Your task to perform on an android device: Clear all items from cart on amazon.com. Add "razer thresher" to the cart on amazon.com, then select checkout. Image 0: 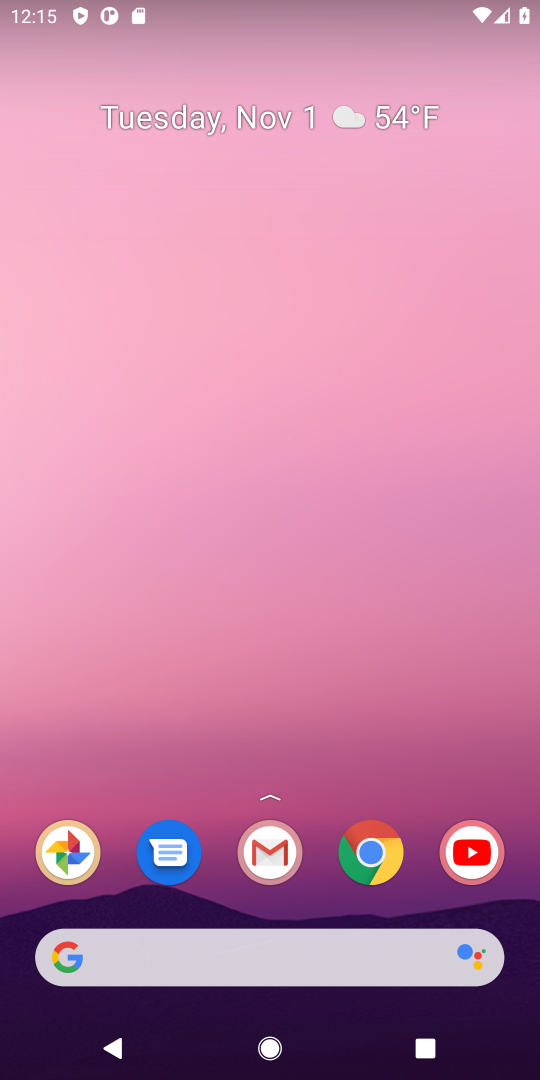
Step 0: click (373, 853)
Your task to perform on an android device: Clear all items from cart on amazon.com. Add "razer thresher" to the cart on amazon.com, then select checkout. Image 1: 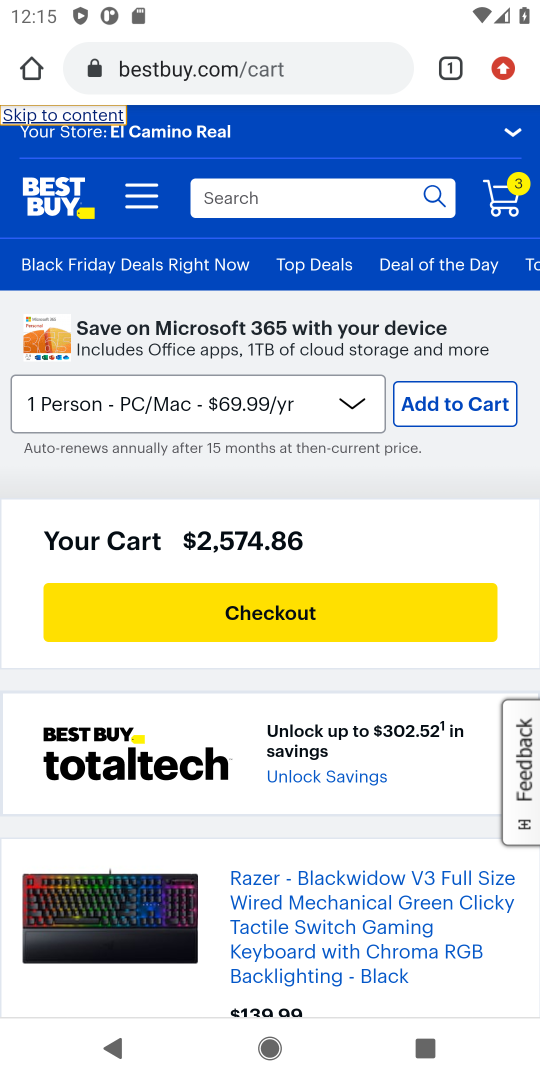
Step 1: click (265, 69)
Your task to perform on an android device: Clear all items from cart on amazon.com. Add "razer thresher" to the cart on amazon.com, then select checkout. Image 2: 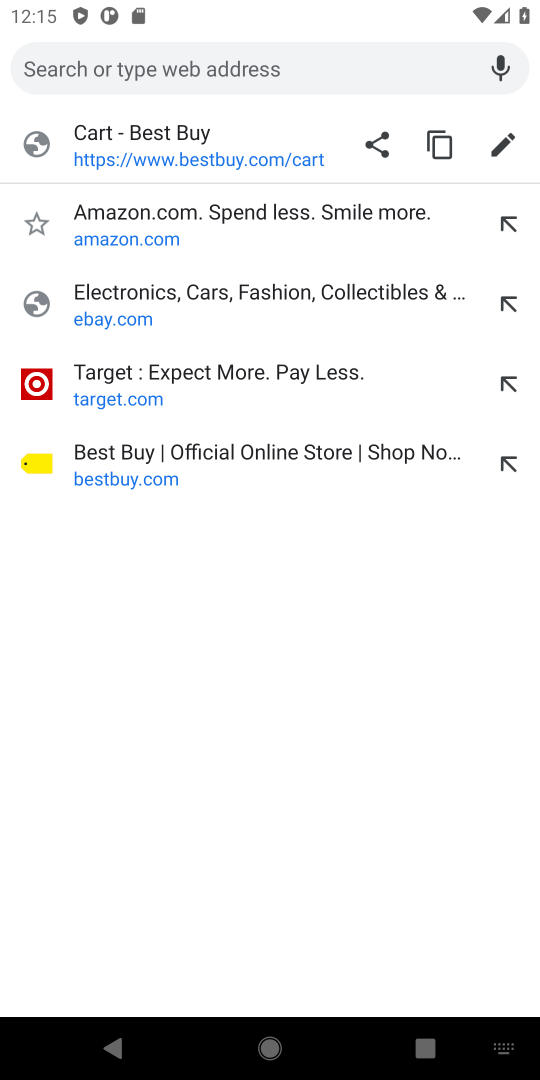
Step 2: type "amazon.com"
Your task to perform on an android device: Clear all items from cart on amazon.com. Add "razer thresher" to the cart on amazon.com, then select checkout. Image 3: 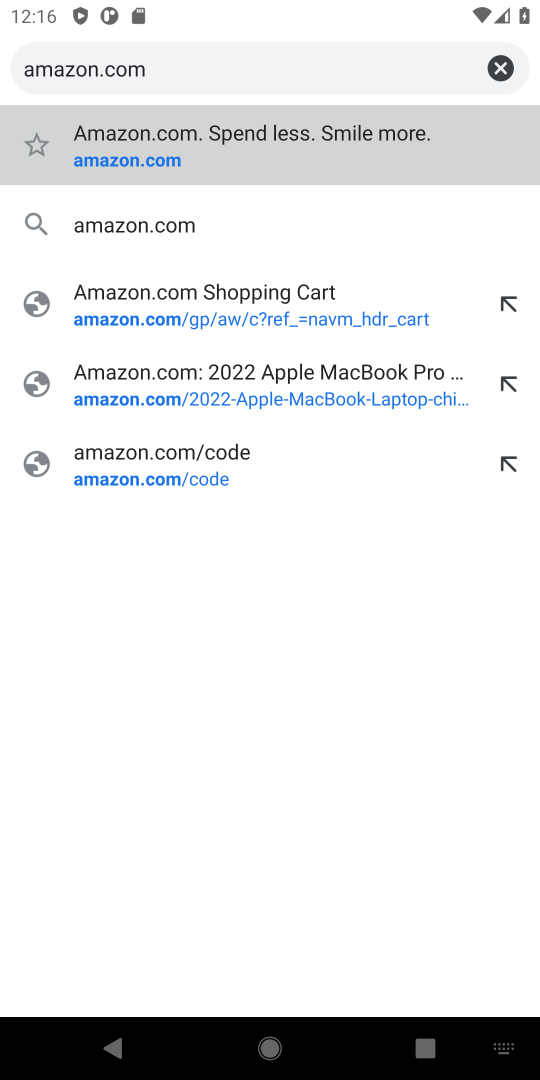
Step 3: type ""
Your task to perform on an android device: Clear all items from cart on amazon.com. Add "razer thresher" to the cart on amazon.com, then select checkout. Image 4: 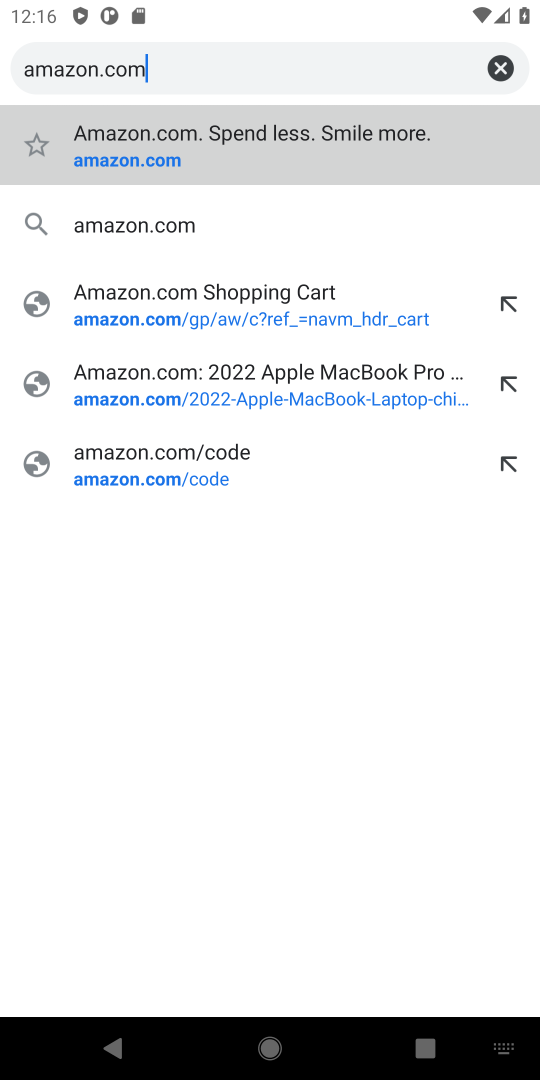
Step 4: press enter
Your task to perform on an android device: Clear all items from cart on amazon.com. Add "razer thresher" to the cart on amazon.com, then select checkout. Image 5: 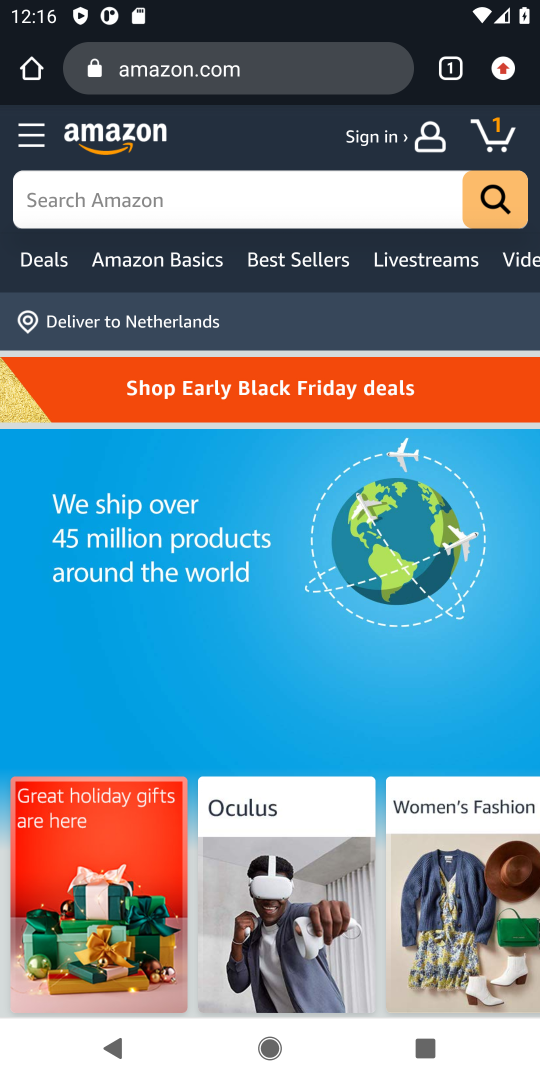
Step 5: click (498, 140)
Your task to perform on an android device: Clear all items from cart on amazon.com. Add "razer thresher" to the cart on amazon.com, then select checkout. Image 6: 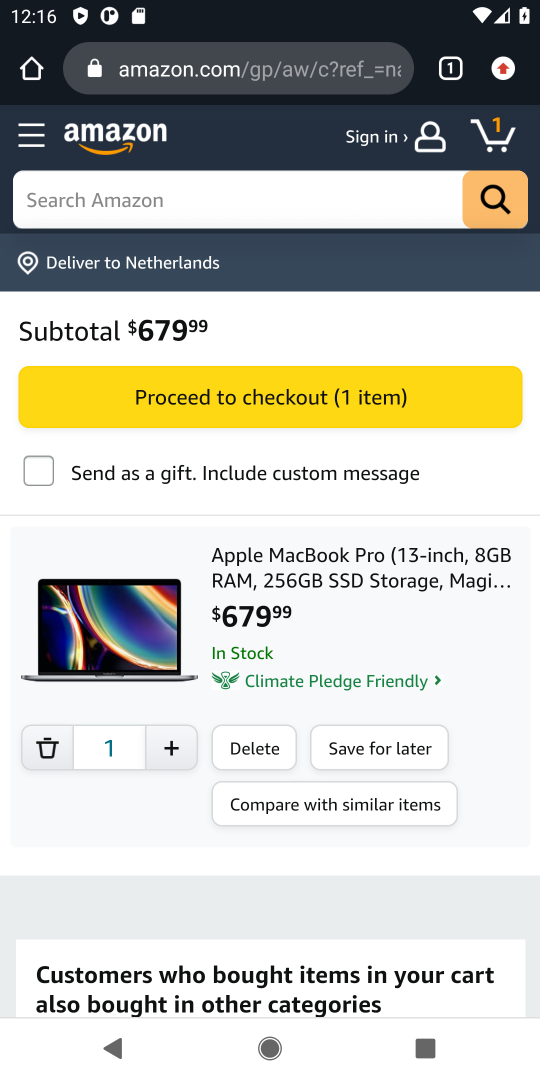
Step 6: click (40, 764)
Your task to perform on an android device: Clear all items from cart on amazon.com. Add "razer thresher" to the cart on amazon.com, then select checkout. Image 7: 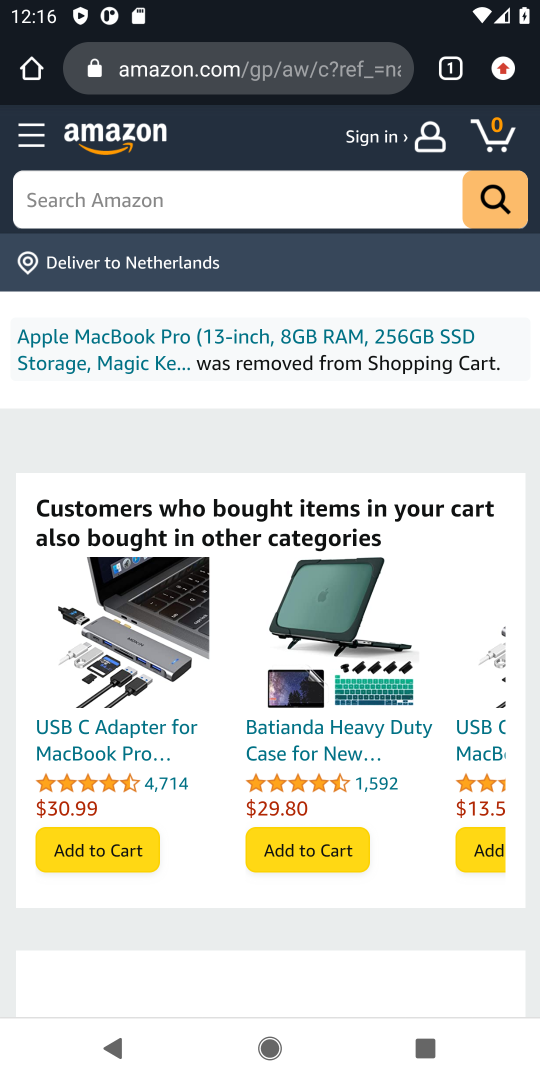
Step 7: click (213, 188)
Your task to perform on an android device: Clear all items from cart on amazon.com. Add "razer thresher" to the cart on amazon.com, then select checkout. Image 8: 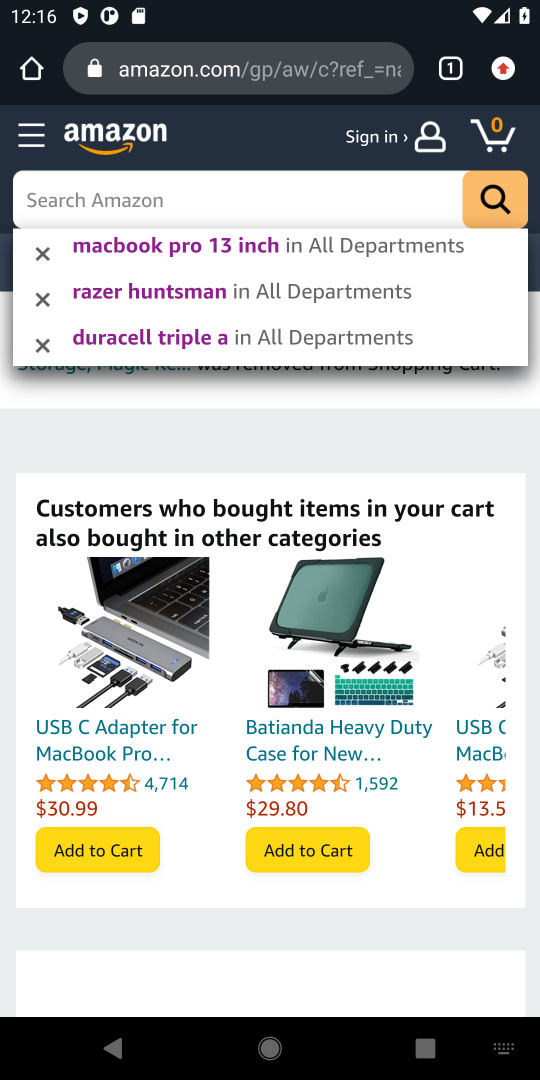
Step 8: type "razer thresher"
Your task to perform on an android device: Clear all items from cart on amazon.com. Add "razer thresher" to the cart on amazon.com, then select checkout. Image 9: 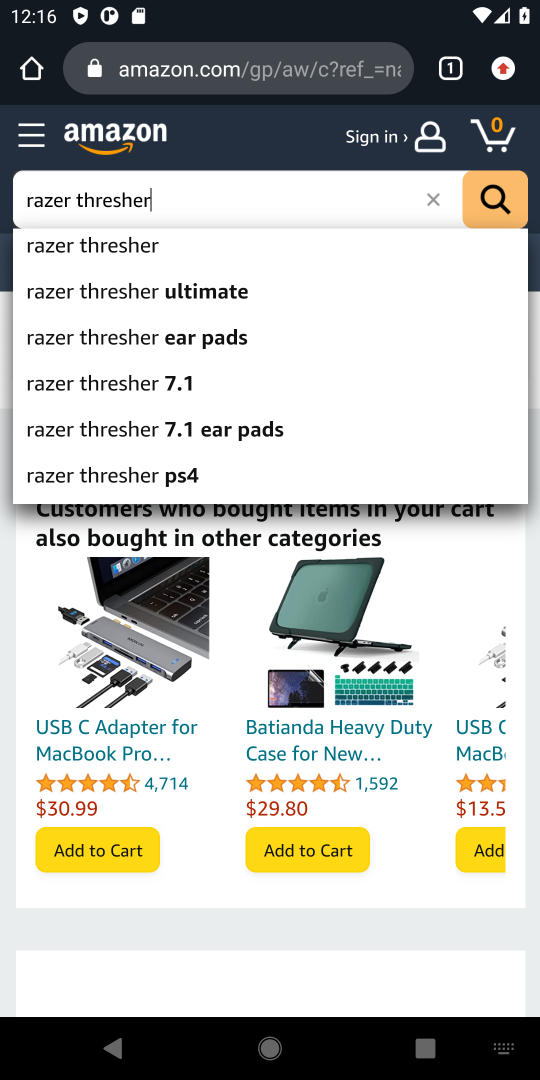
Step 9: type ""
Your task to perform on an android device: Clear all items from cart on amazon.com. Add "razer thresher" to the cart on amazon.com, then select checkout. Image 10: 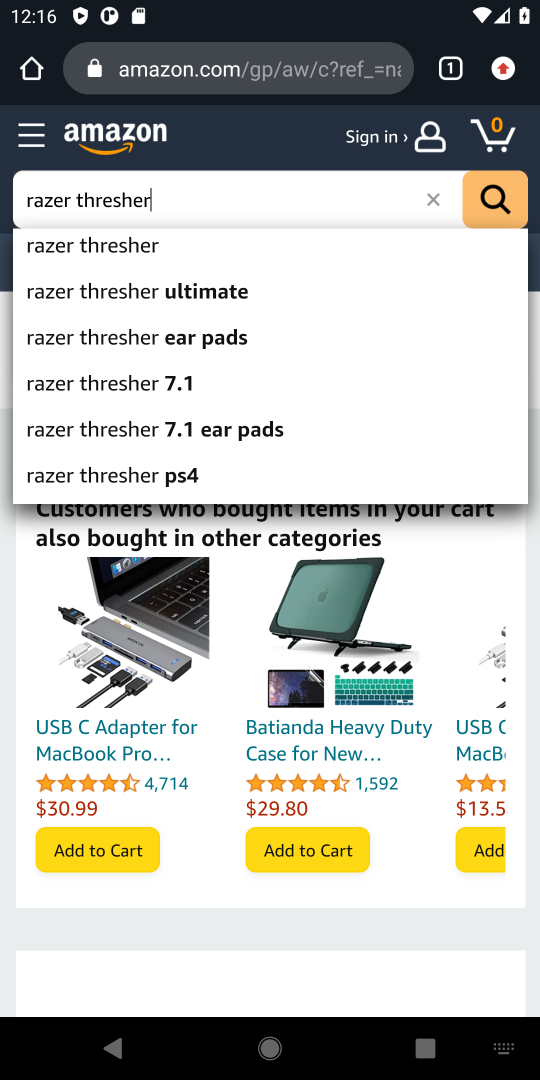
Step 10: press enter
Your task to perform on an android device: Clear all items from cart on amazon.com. Add "razer thresher" to the cart on amazon.com, then select checkout. Image 11: 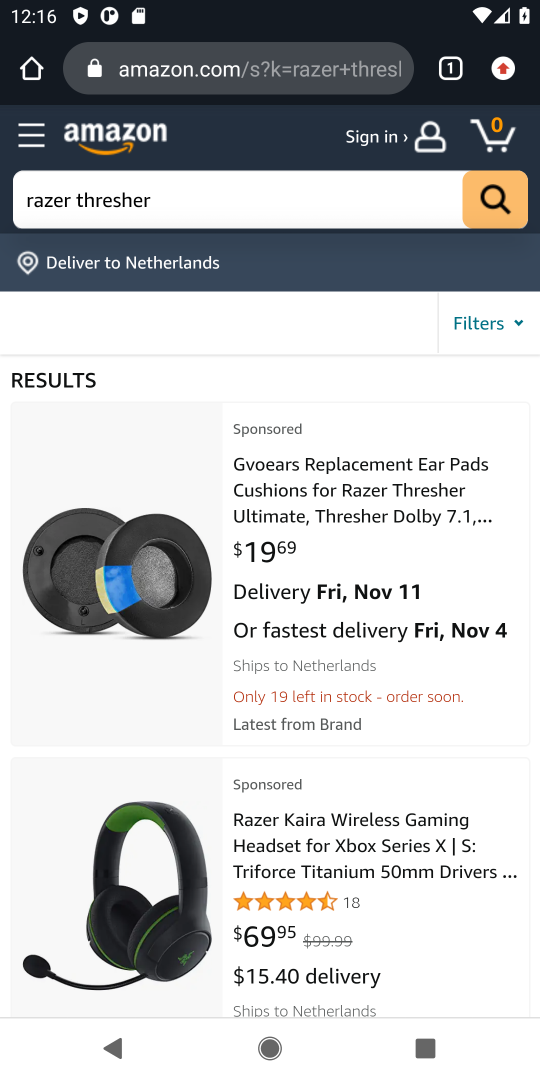
Step 11: drag from (441, 871) to (439, 719)
Your task to perform on an android device: Clear all items from cart on amazon.com. Add "razer thresher" to the cart on amazon.com, then select checkout. Image 12: 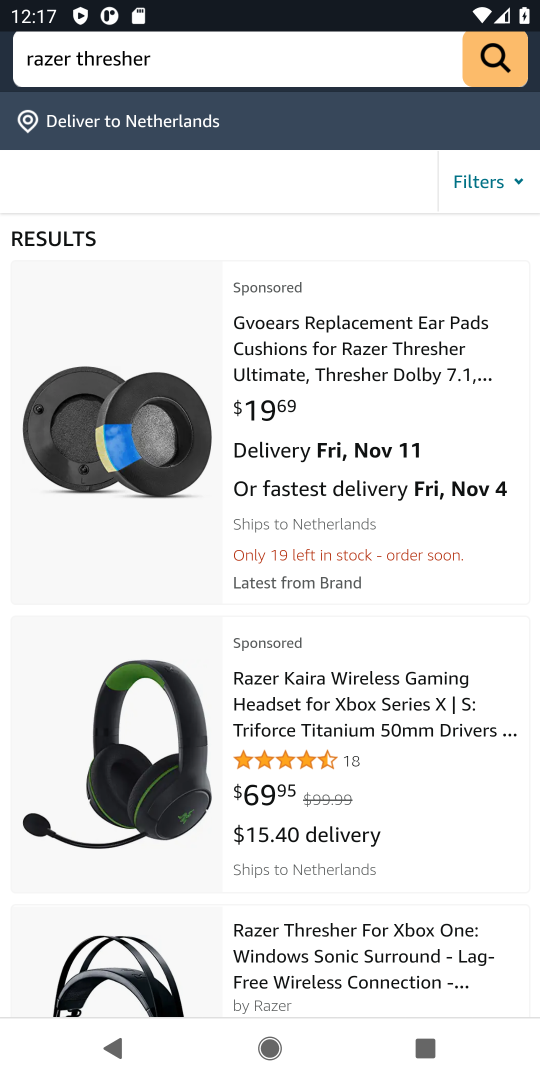
Step 12: click (359, 351)
Your task to perform on an android device: Clear all items from cart on amazon.com. Add "razer thresher" to the cart on amazon.com, then select checkout. Image 13: 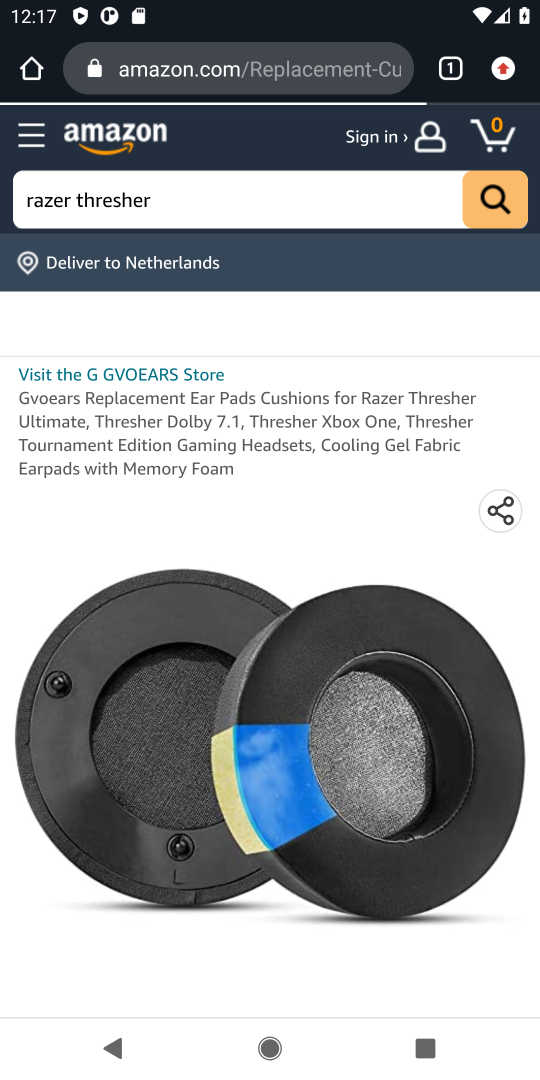
Step 13: drag from (507, 934) to (363, 233)
Your task to perform on an android device: Clear all items from cart on amazon.com. Add "razer thresher" to the cart on amazon.com, then select checkout. Image 14: 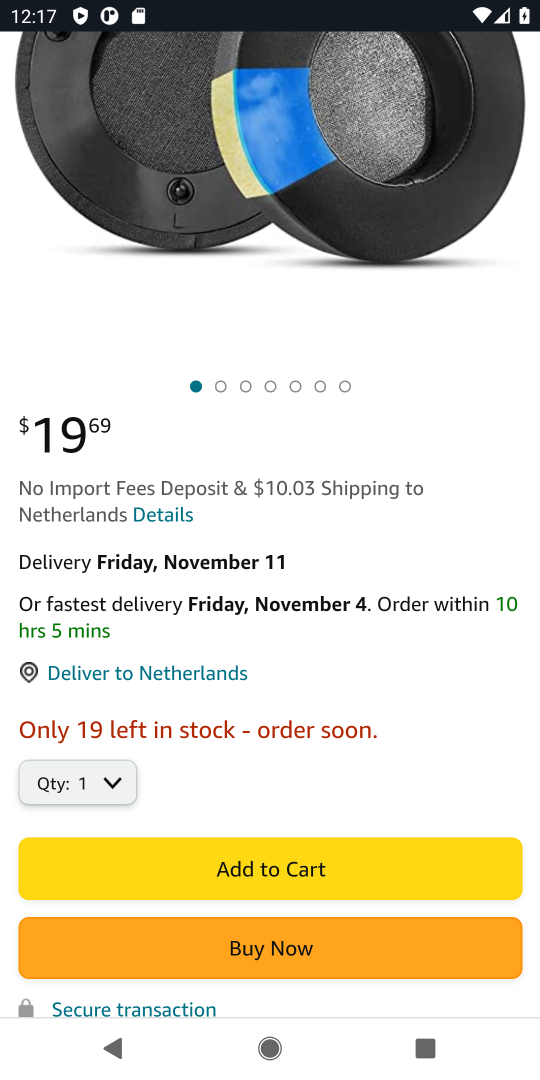
Step 14: click (326, 917)
Your task to perform on an android device: Clear all items from cart on amazon.com. Add "razer thresher" to the cart on amazon.com, then select checkout. Image 15: 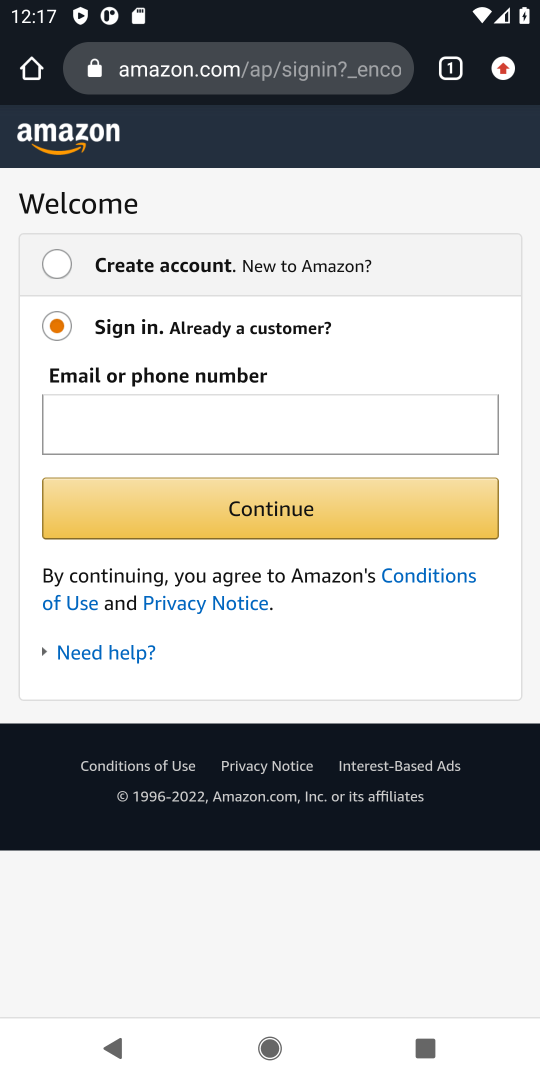
Step 15: task complete